Your task to perform on an android device: open chrome and create a bookmark for the current page Image 0: 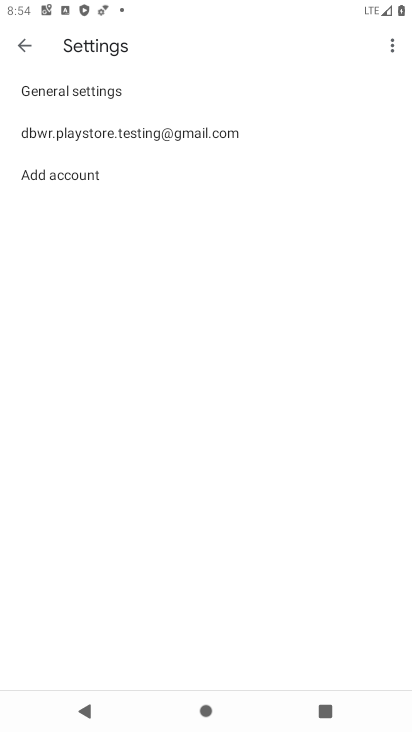
Step 0: press home button
Your task to perform on an android device: open chrome and create a bookmark for the current page Image 1: 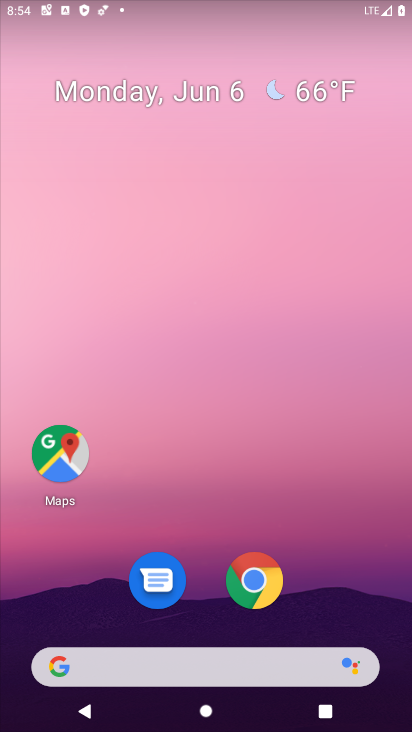
Step 1: drag from (392, 559) to (303, 4)
Your task to perform on an android device: open chrome and create a bookmark for the current page Image 2: 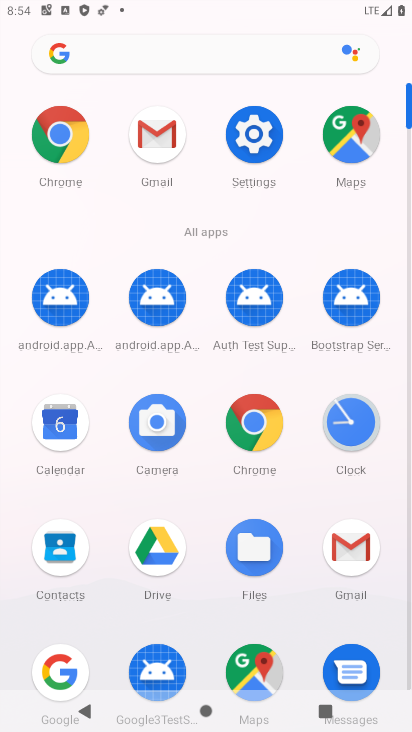
Step 2: click (77, 132)
Your task to perform on an android device: open chrome and create a bookmark for the current page Image 3: 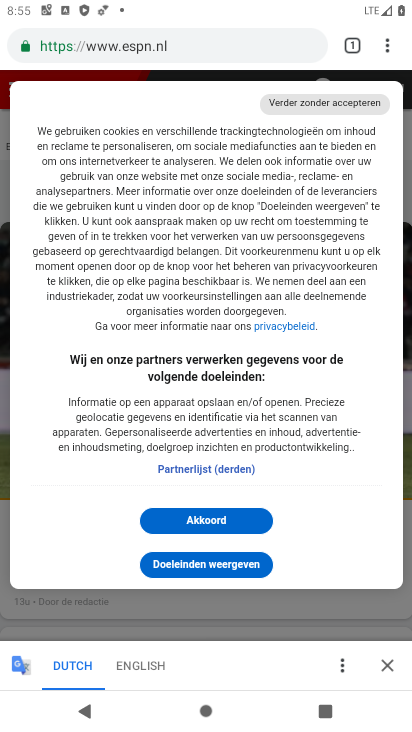
Step 3: task complete